Your task to perform on an android device: visit the assistant section in the google photos Image 0: 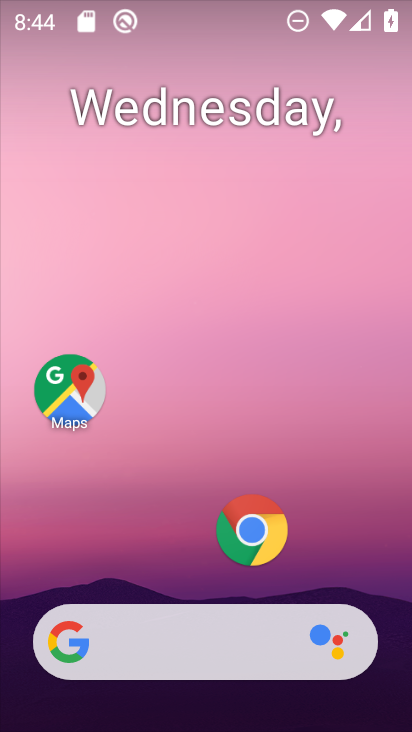
Step 0: drag from (185, 573) to (258, 15)
Your task to perform on an android device: visit the assistant section in the google photos Image 1: 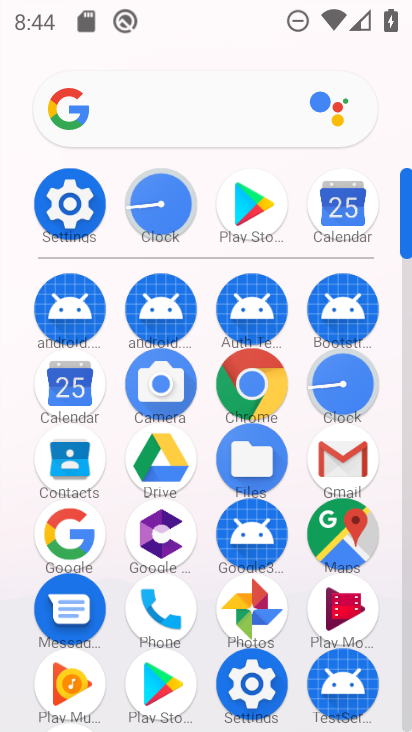
Step 1: click (230, 613)
Your task to perform on an android device: visit the assistant section in the google photos Image 2: 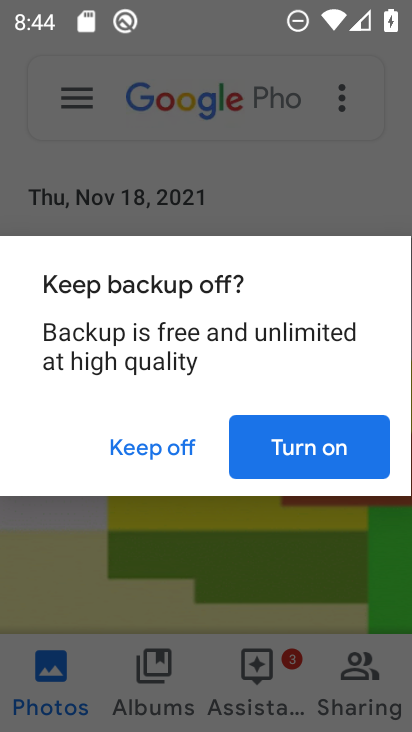
Step 2: click (142, 439)
Your task to perform on an android device: visit the assistant section in the google photos Image 3: 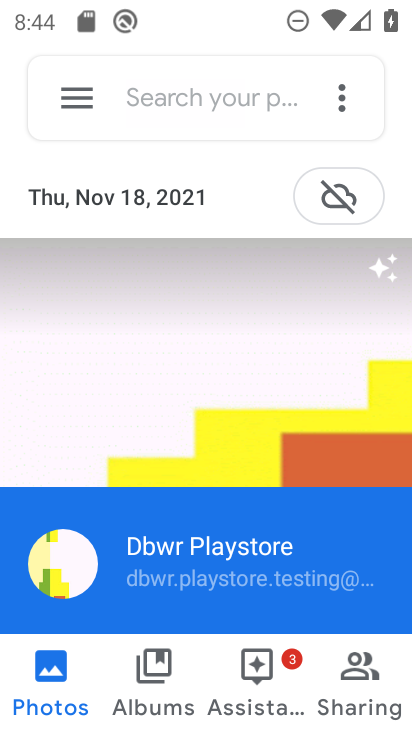
Step 3: click (256, 700)
Your task to perform on an android device: visit the assistant section in the google photos Image 4: 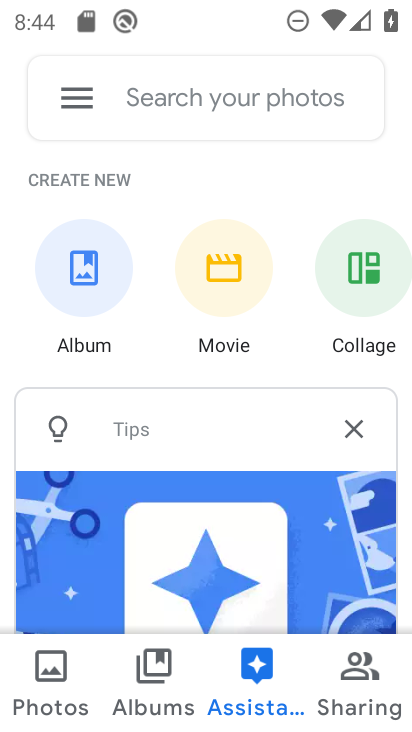
Step 4: task complete